Your task to perform on an android device: check android version Image 0: 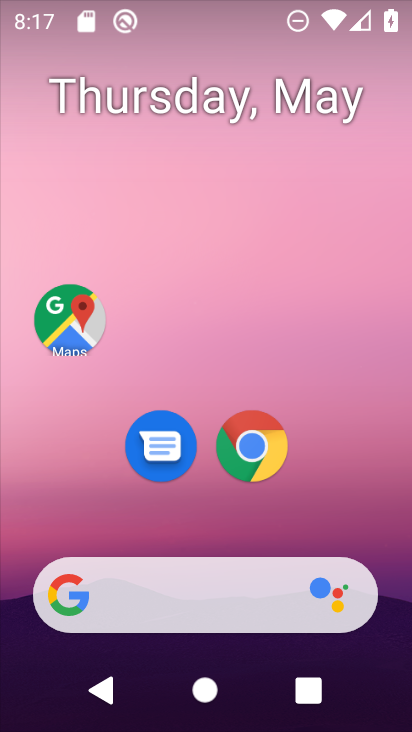
Step 0: drag from (348, 514) to (364, 152)
Your task to perform on an android device: check android version Image 1: 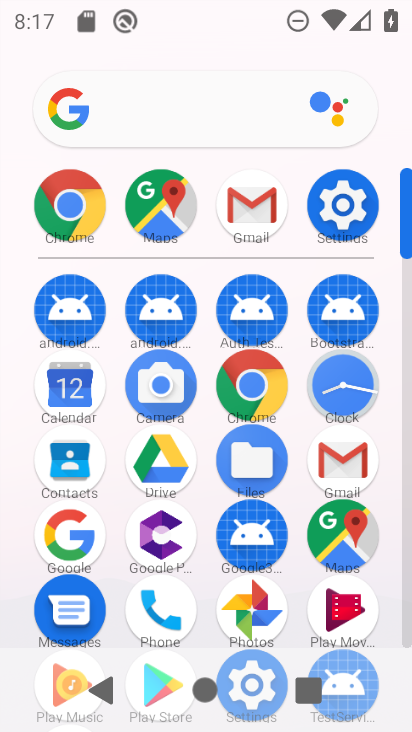
Step 1: drag from (295, 580) to (283, 301)
Your task to perform on an android device: check android version Image 2: 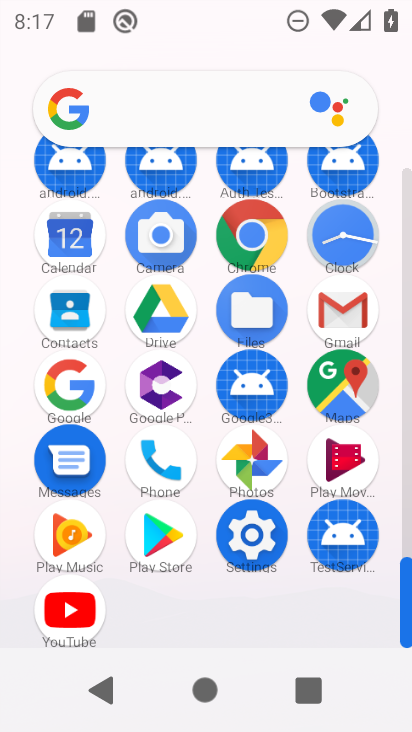
Step 2: click (247, 554)
Your task to perform on an android device: check android version Image 3: 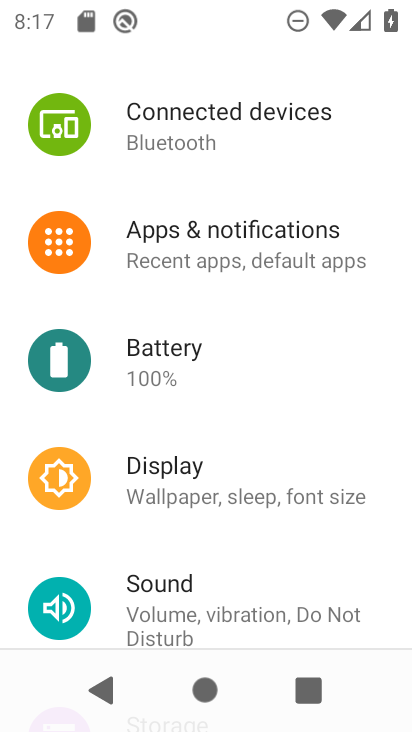
Step 3: drag from (251, 601) to (256, 251)
Your task to perform on an android device: check android version Image 4: 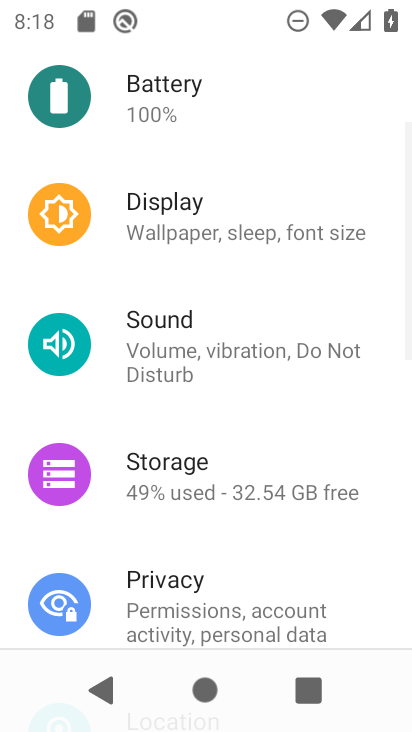
Step 4: drag from (268, 527) to (247, 267)
Your task to perform on an android device: check android version Image 5: 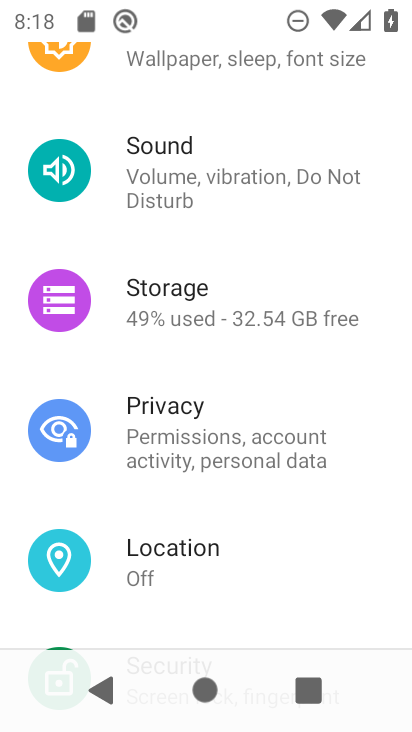
Step 5: drag from (252, 580) to (265, 248)
Your task to perform on an android device: check android version Image 6: 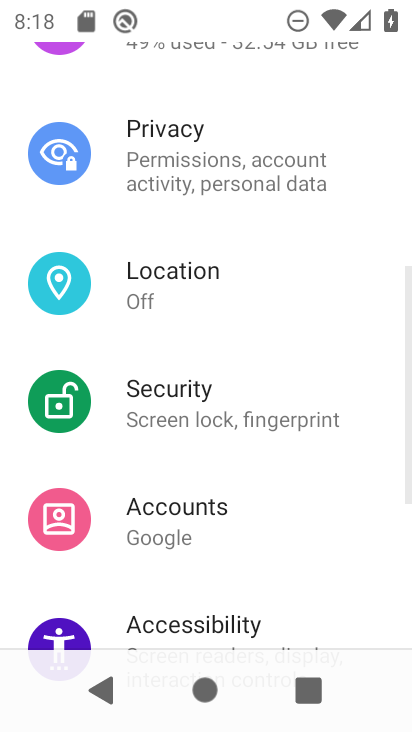
Step 6: drag from (310, 576) to (324, 210)
Your task to perform on an android device: check android version Image 7: 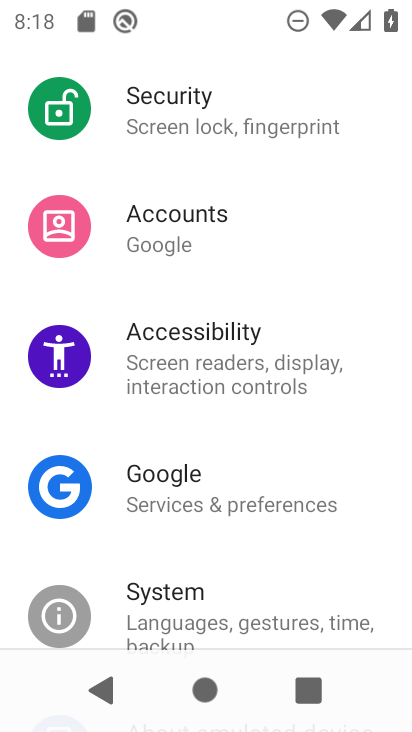
Step 7: drag from (256, 539) to (282, 220)
Your task to perform on an android device: check android version Image 8: 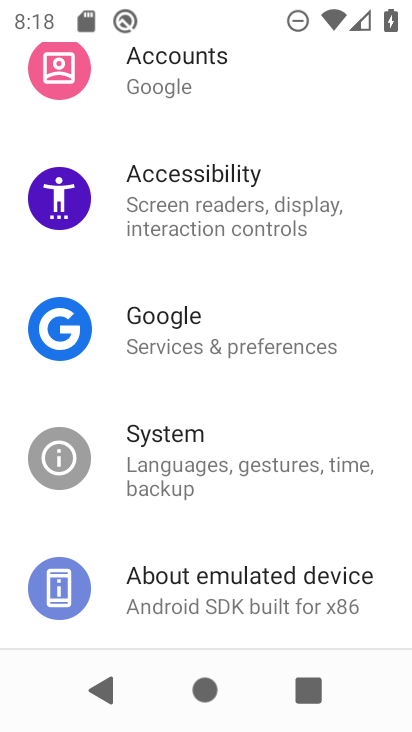
Step 8: click (243, 579)
Your task to perform on an android device: check android version Image 9: 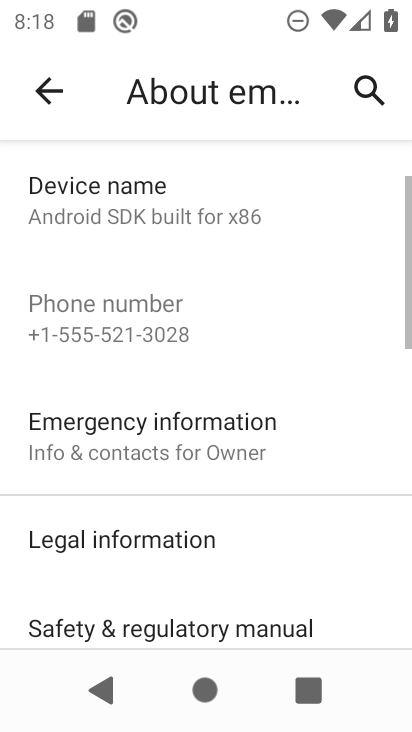
Step 9: drag from (304, 550) to (317, 265)
Your task to perform on an android device: check android version Image 10: 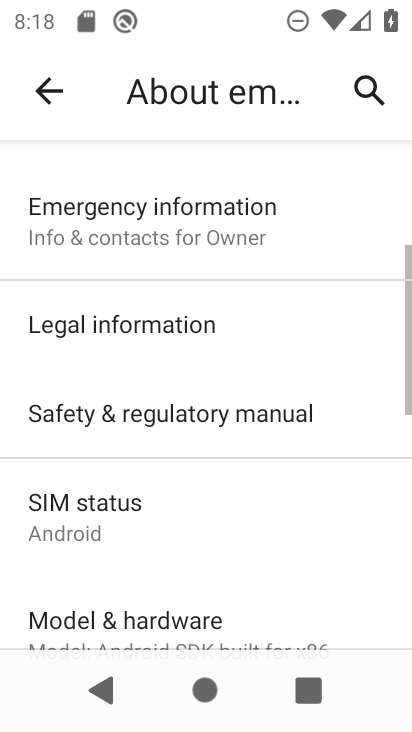
Step 10: drag from (337, 578) to (330, 187)
Your task to perform on an android device: check android version Image 11: 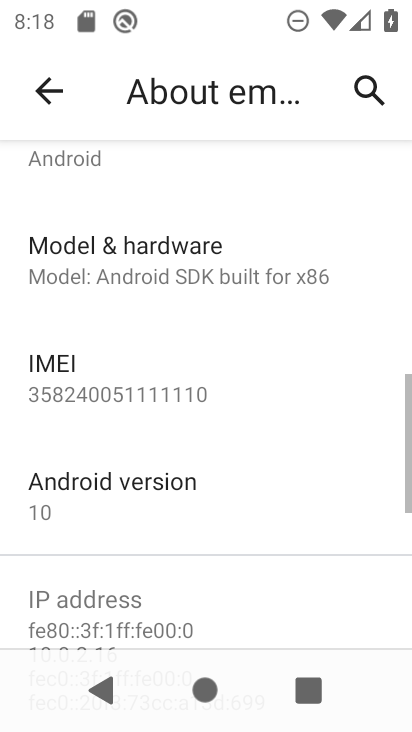
Step 11: click (71, 509)
Your task to perform on an android device: check android version Image 12: 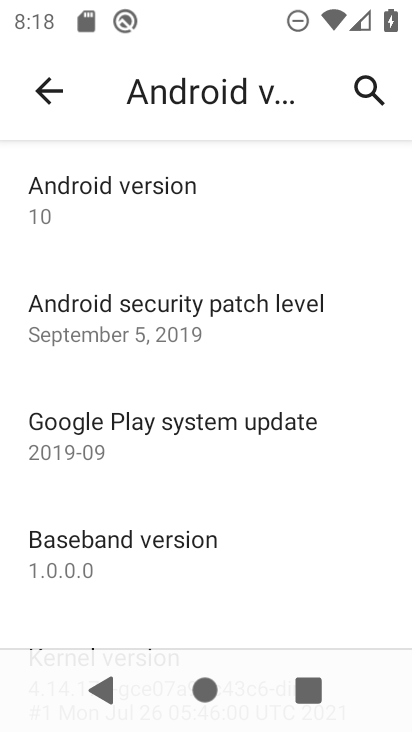
Step 12: task complete